Your task to perform on an android device: star an email in the gmail app Image 0: 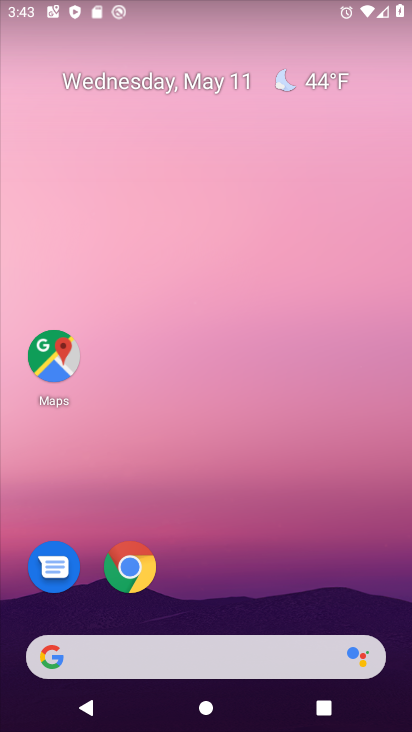
Step 0: drag from (241, 519) to (234, 23)
Your task to perform on an android device: star an email in the gmail app Image 1: 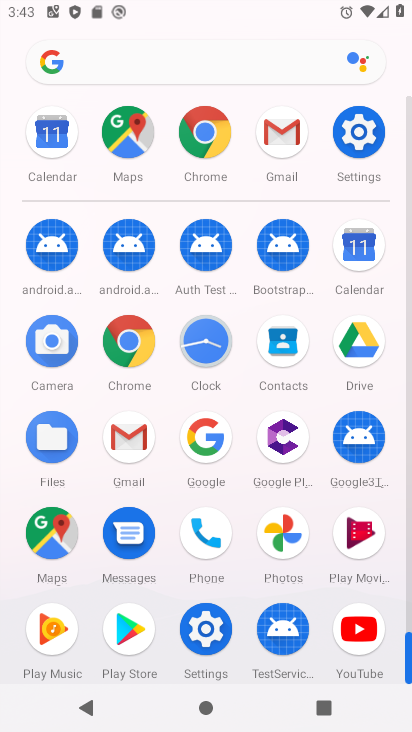
Step 1: click (128, 419)
Your task to perform on an android device: star an email in the gmail app Image 2: 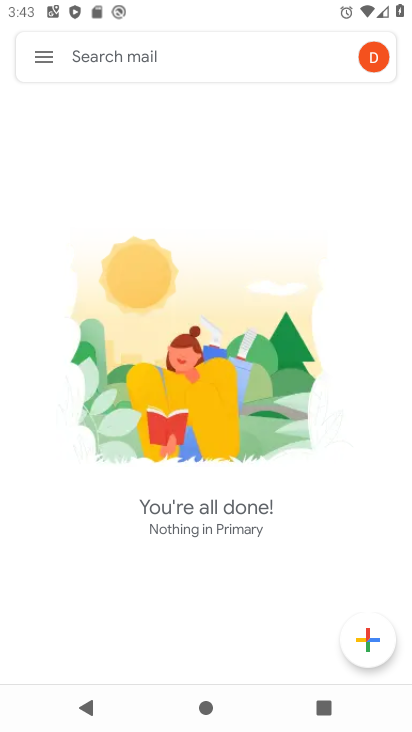
Step 2: click (48, 63)
Your task to perform on an android device: star an email in the gmail app Image 3: 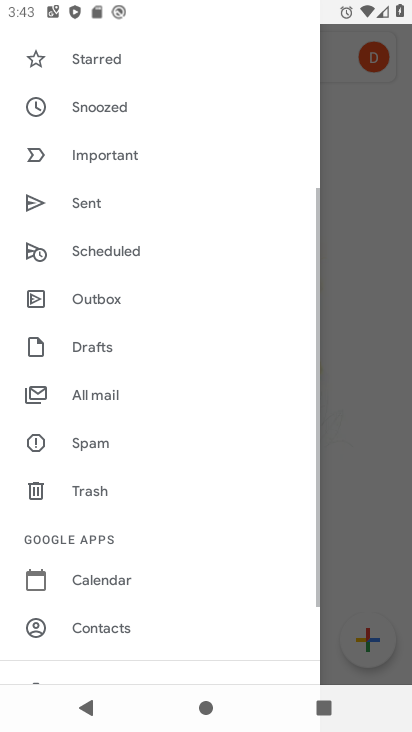
Step 3: drag from (192, 518) to (209, 110)
Your task to perform on an android device: star an email in the gmail app Image 4: 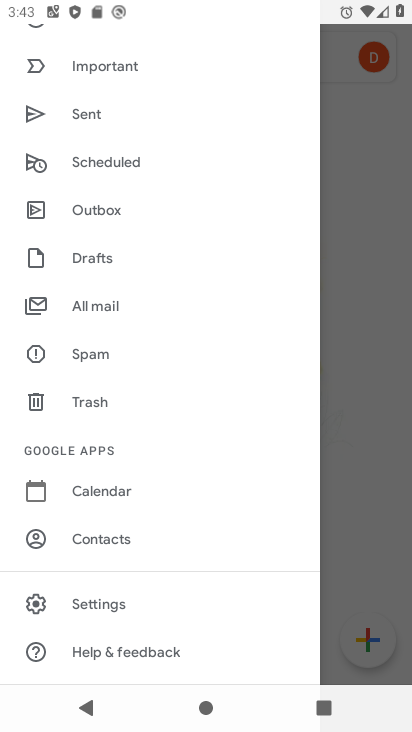
Step 4: drag from (161, 114) to (164, 503)
Your task to perform on an android device: star an email in the gmail app Image 5: 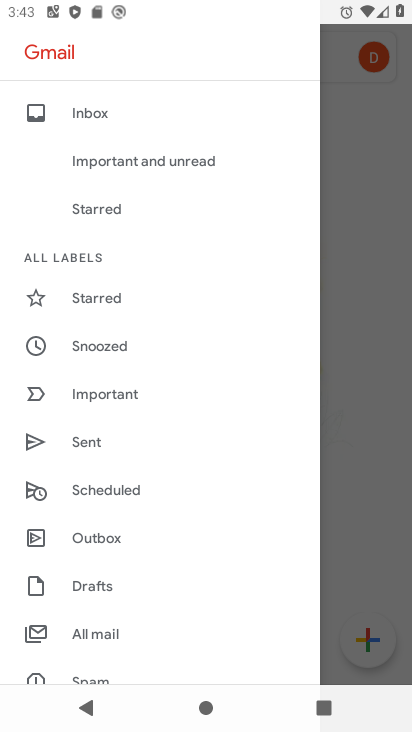
Step 5: drag from (165, 509) to (158, 223)
Your task to perform on an android device: star an email in the gmail app Image 6: 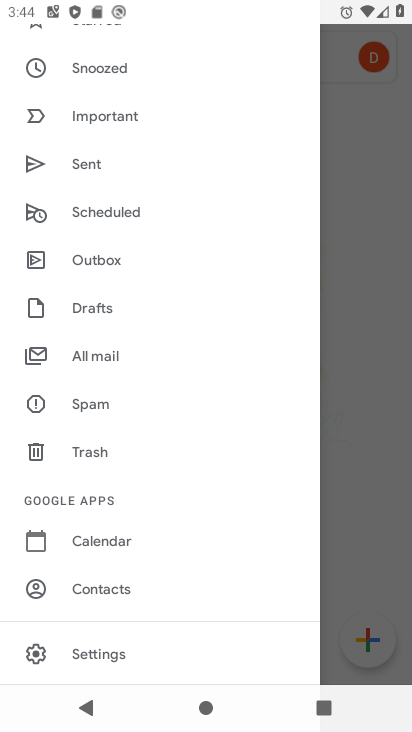
Step 6: click (102, 361)
Your task to perform on an android device: star an email in the gmail app Image 7: 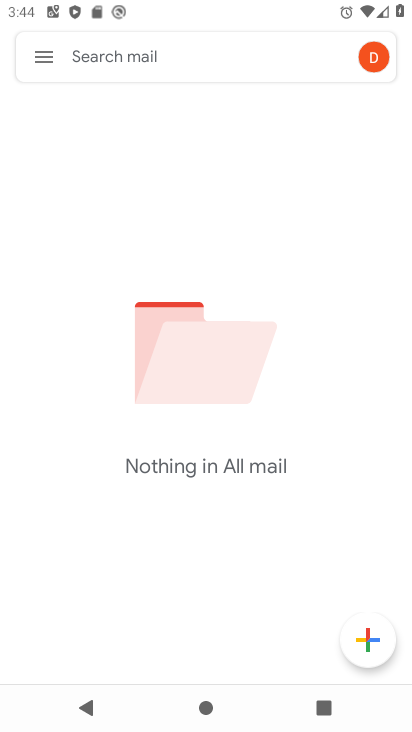
Step 7: click (44, 58)
Your task to perform on an android device: star an email in the gmail app Image 8: 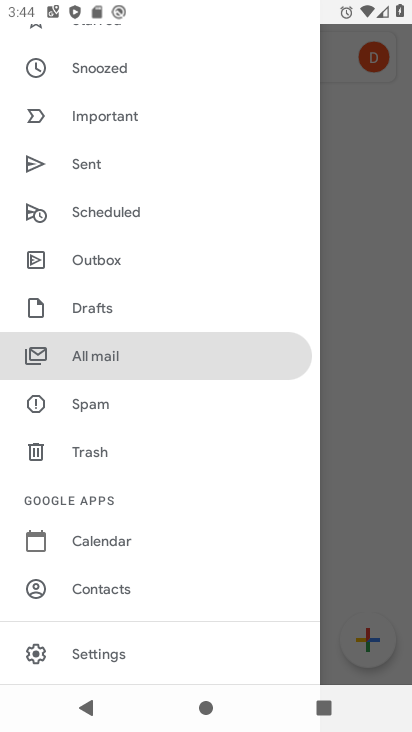
Step 8: drag from (182, 191) to (182, 528)
Your task to perform on an android device: star an email in the gmail app Image 9: 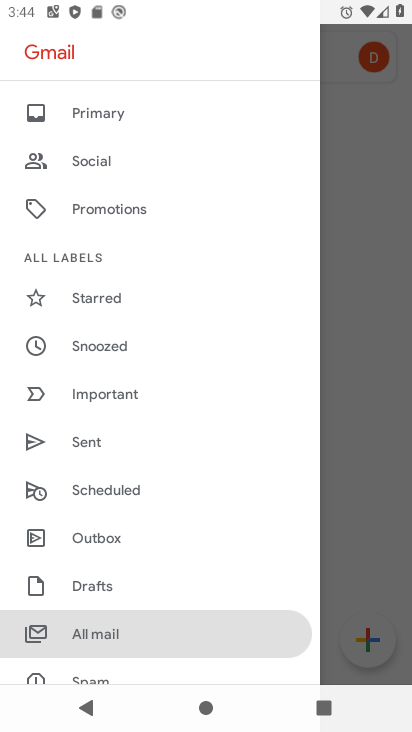
Step 9: click (136, 107)
Your task to perform on an android device: star an email in the gmail app Image 10: 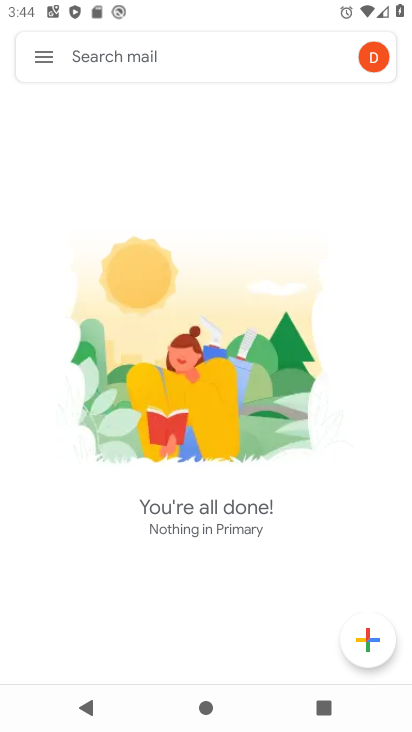
Step 10: task complete